Your task to perform on an android device: add a contact in the contacts app Image 0: 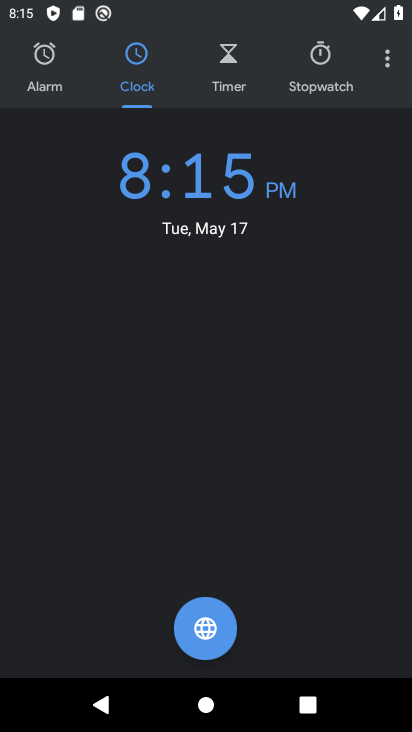
Step 0: click (379, 488)
Your task to perform on an android device: add a contact in the contacts app Image 1: 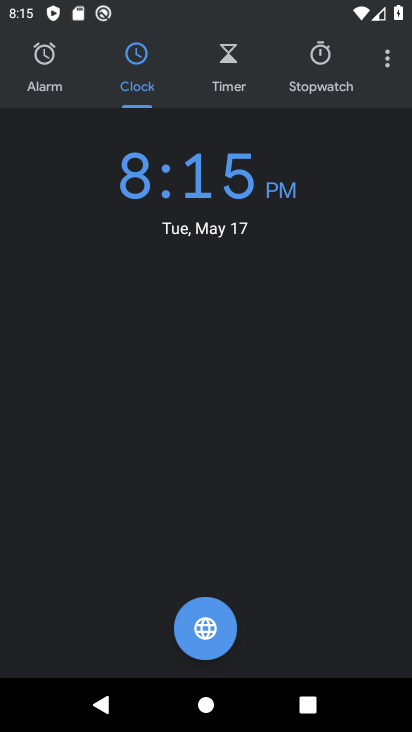
Step 1: press home button
Your task to perform on an android device: add a contact in the contacts app Image 2: 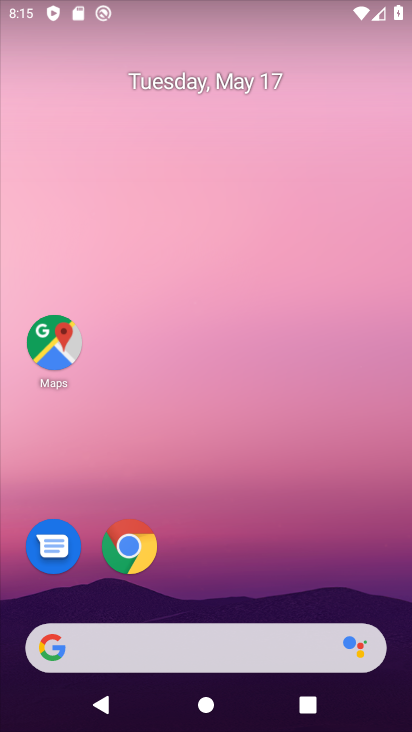
Step 2: drag from (242, 593) to (336, 177)
Your task to perform on an android device: add a contact in the contacts app Image 3: 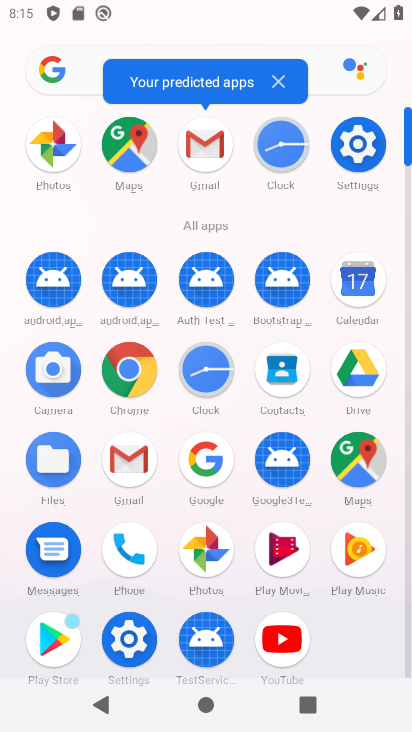
Step 3: click (291, 375)
Your task to perform on an android device: add a contact in the contacts app Image 4: 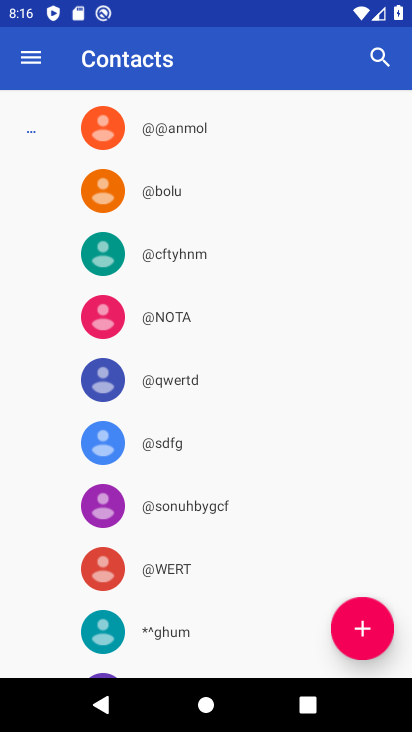
Step 4: click (376, 624)
Your task to perform on an android device: add a contact in the contacts app Image 5: 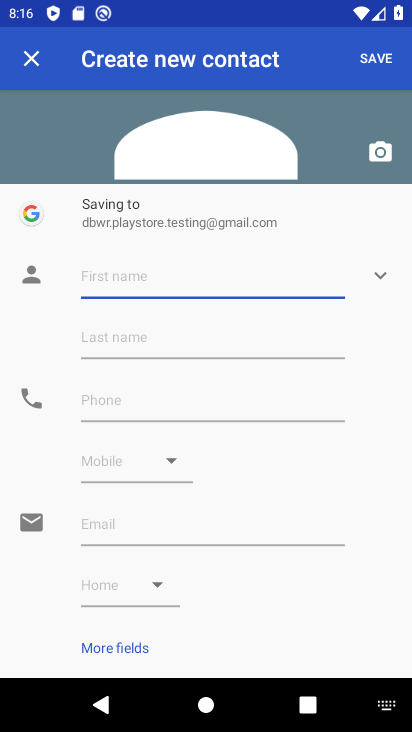
Step 5: type "bnnnnnnb"
Your task to perform on an android device: add a contact in the contacts app Image 6: 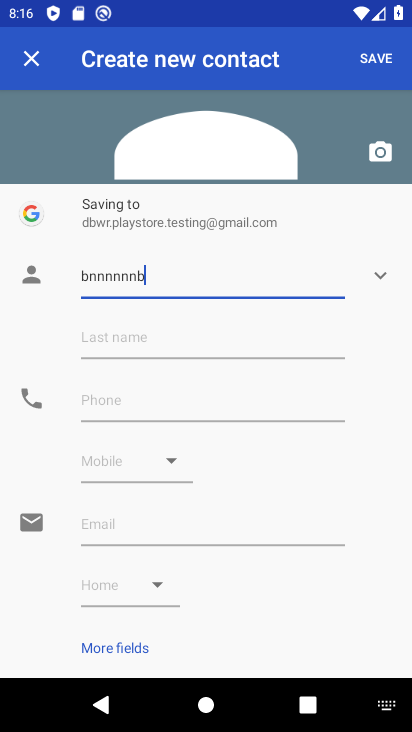
Step 6: click (104, 398)
Your task to perform on an android device: add a contact in the contacts app Image 7: 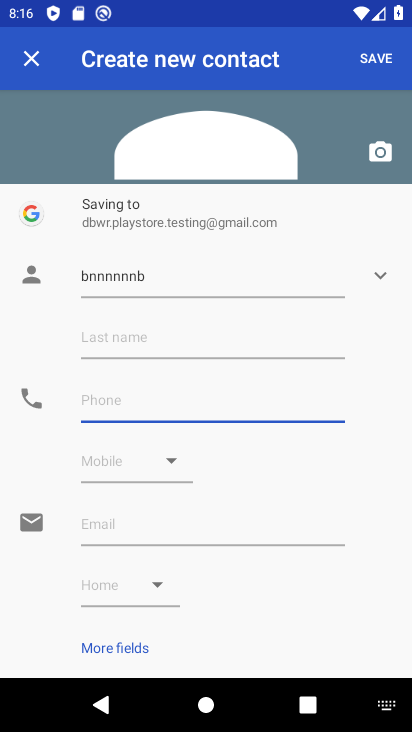
Step 7: type "9898978"
Your task to perform on an android device: add a contact in the contacts app Image 8: 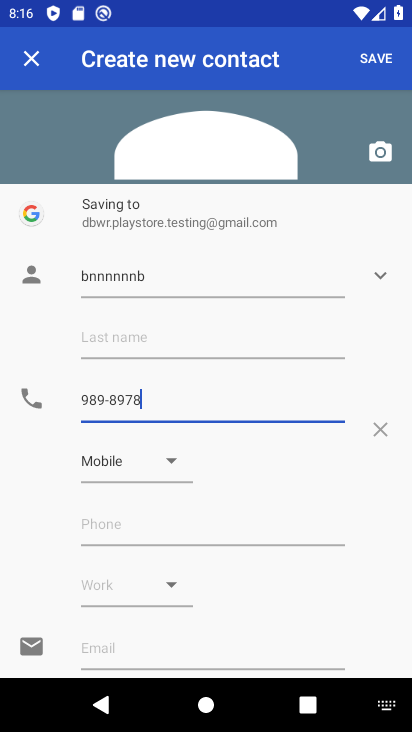
Step 8: type "989"
Your task to perform on an android device: add a contact in the contacts app Image 9: 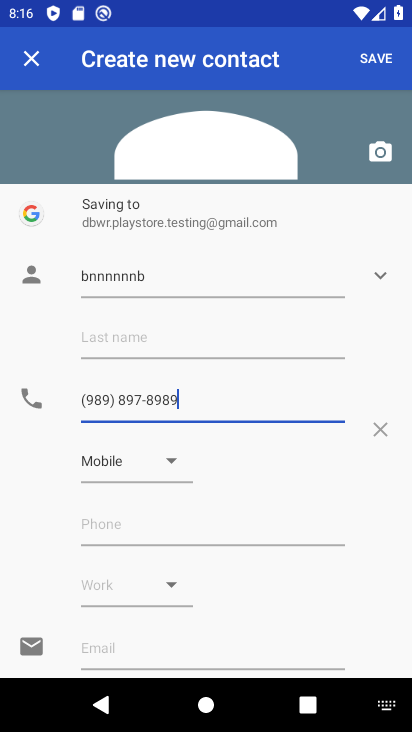
Step 9: click (383, 70)
Your task to perform on an android device: add a contact in the contacts app Image 10: 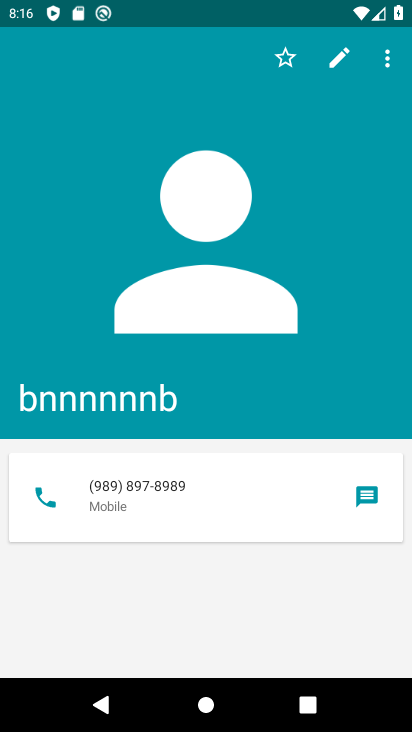
Step 10: task complete